Your task to perform on an android device: Go to eBay Image 0: 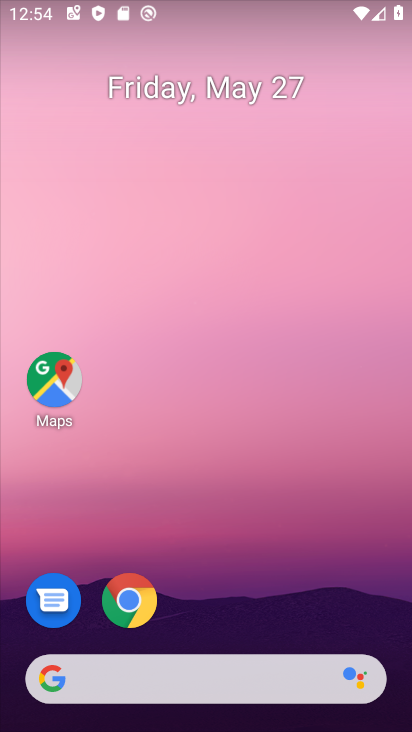
Step 0: click (140, 598)
Your task to perform on an android device: Go to eBay Image 1: 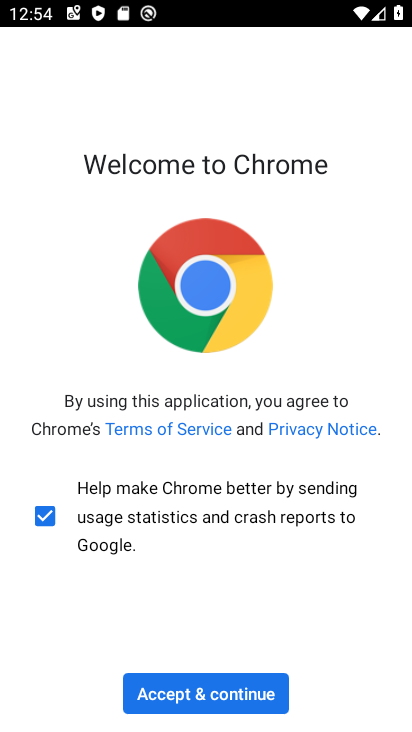
Step 1: click (230, 700)
Your task to perform on an android device: Go to eBay Image 2: 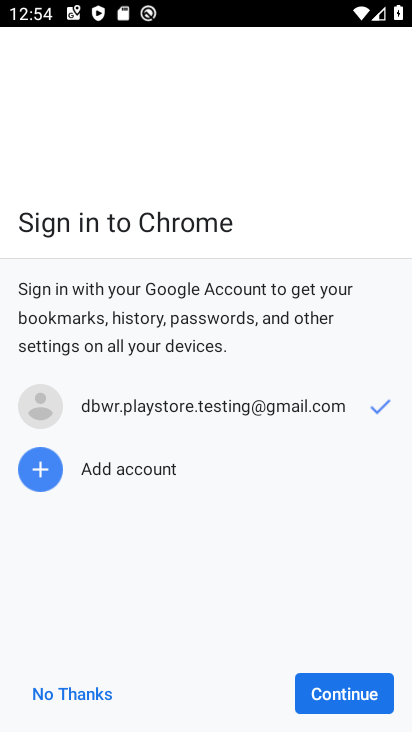
Step 2: click (354, 683)
Your task to perform on an android device: Go to eBay Image 3: 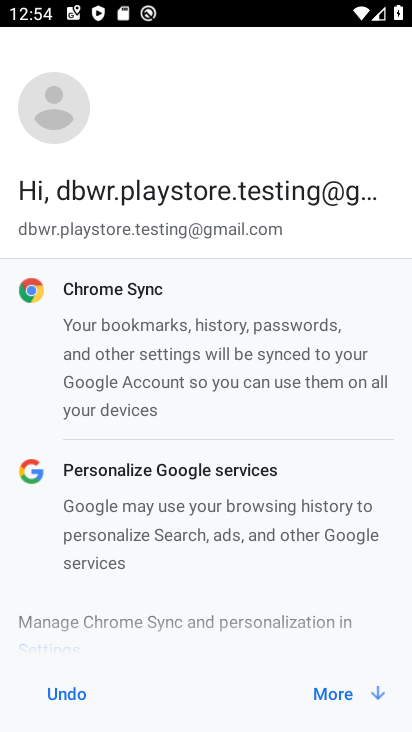
Step 3: click (340, 688)
Your task to perform on an android device: Go to eBay Image 4: 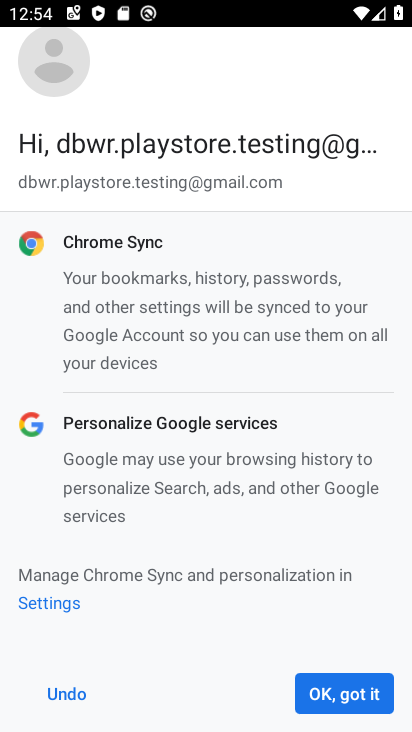
Step 4: click (352, 686)
Your task to perform on an android device: Go to eBay Image 5: 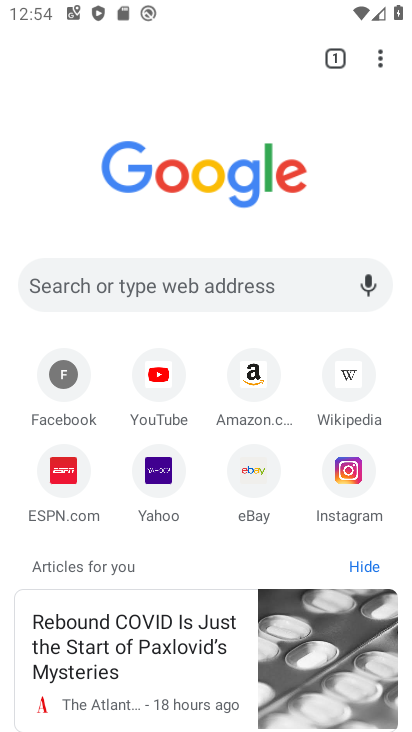
Step 5: click (244, 473)
Your task to perform on an android device: Go to eBay Image 6: 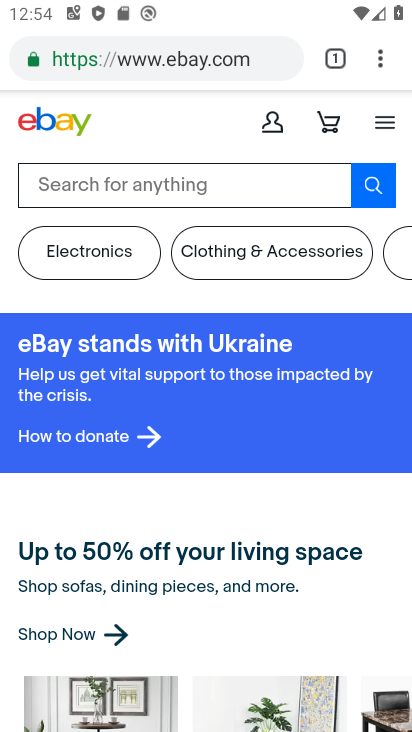
Step 6: task complete